Your task to perform on an android device: change the upload size in google photos Image 0: 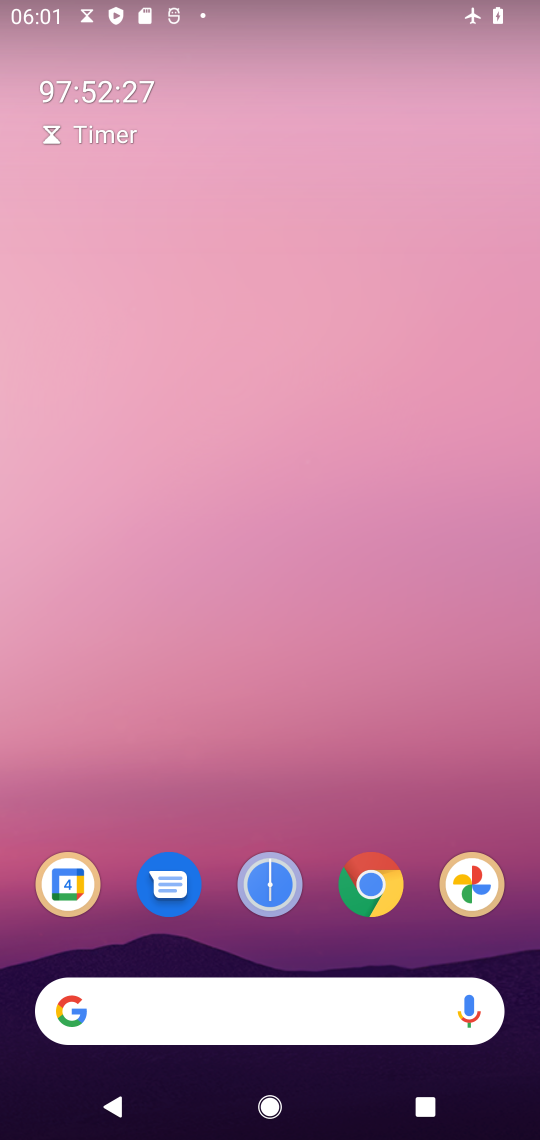
Step 0: drag from (265, 890) to (256, 430)
Your task to perform on an android device: change the upload size in google photos Image 1: 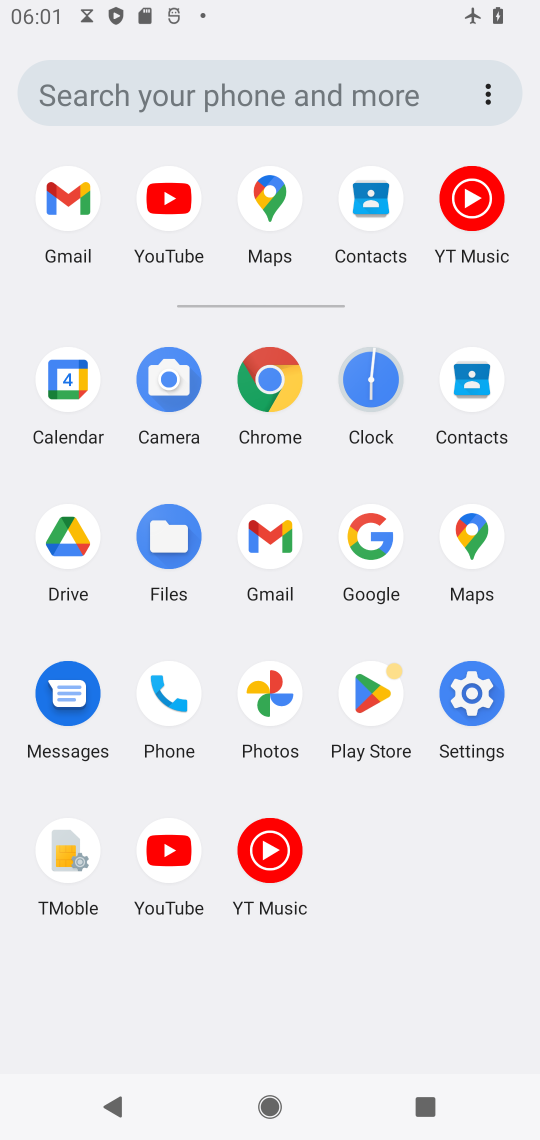
Step 1: click (271, 701)
Your task to perform on an android device: change the upload size in google photos Image 2: 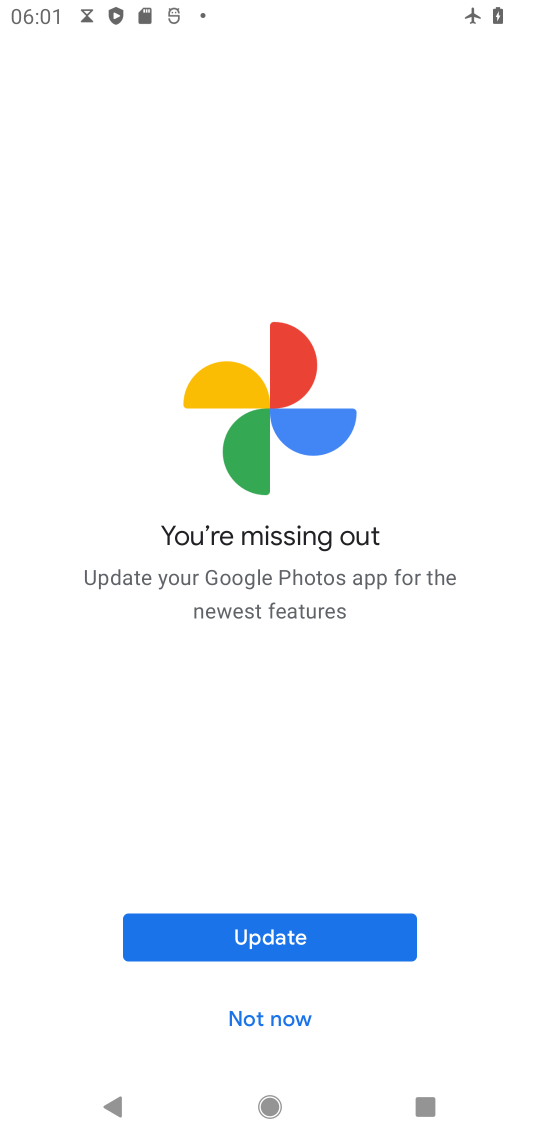
Step 2: click (283, 1031)
Your task to perform on an android device: change the upload size in google photos Image 3: 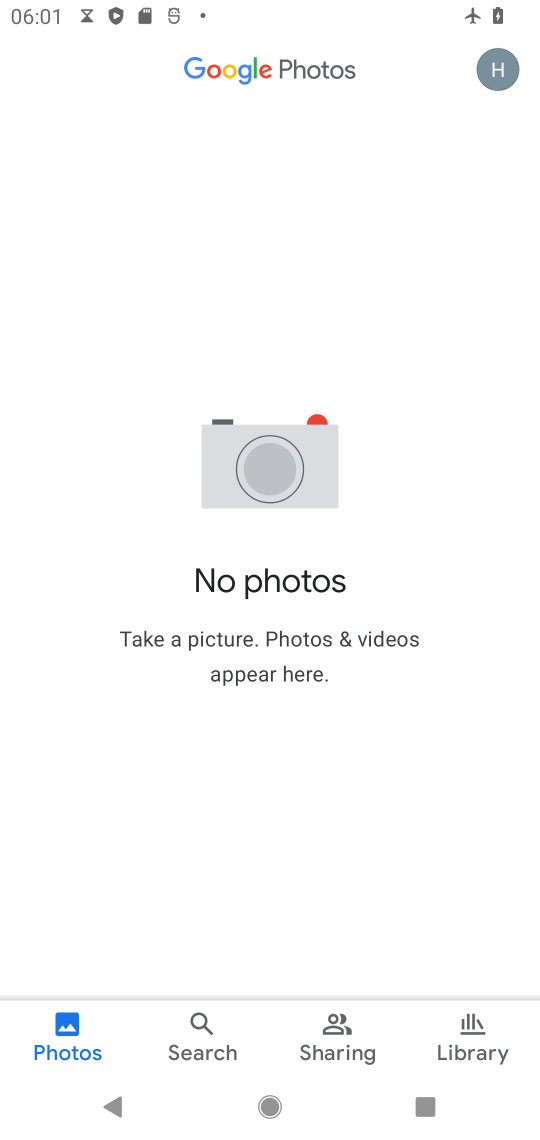
Step 3: click (505, 68)
Your task to perform on an android device: change the upload size in google photos Image 4: 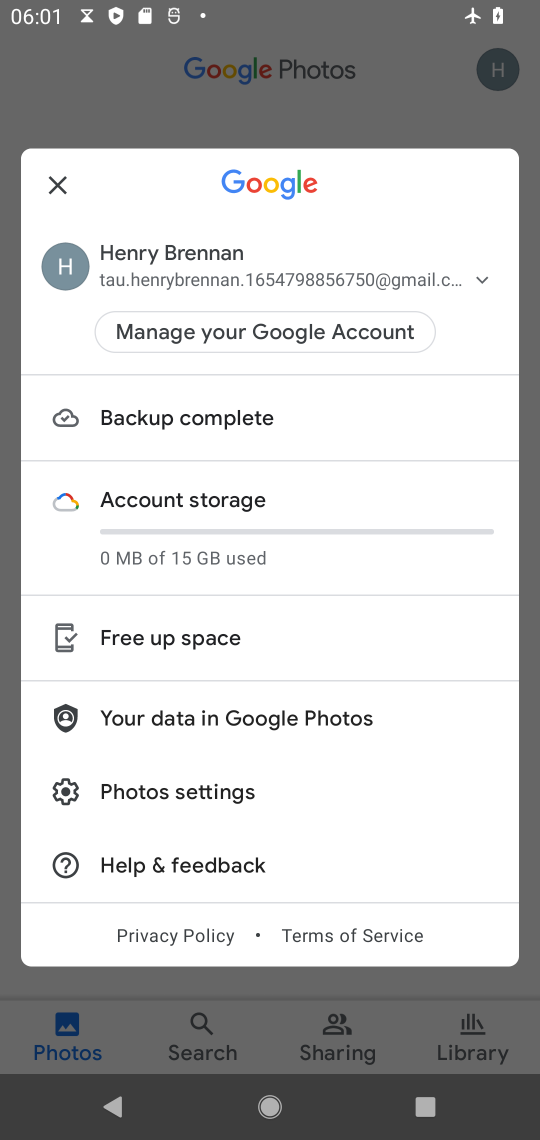
Step 4: click (194, 799)
Your task to perform on an android device: change the upload size in google photos Image 5: 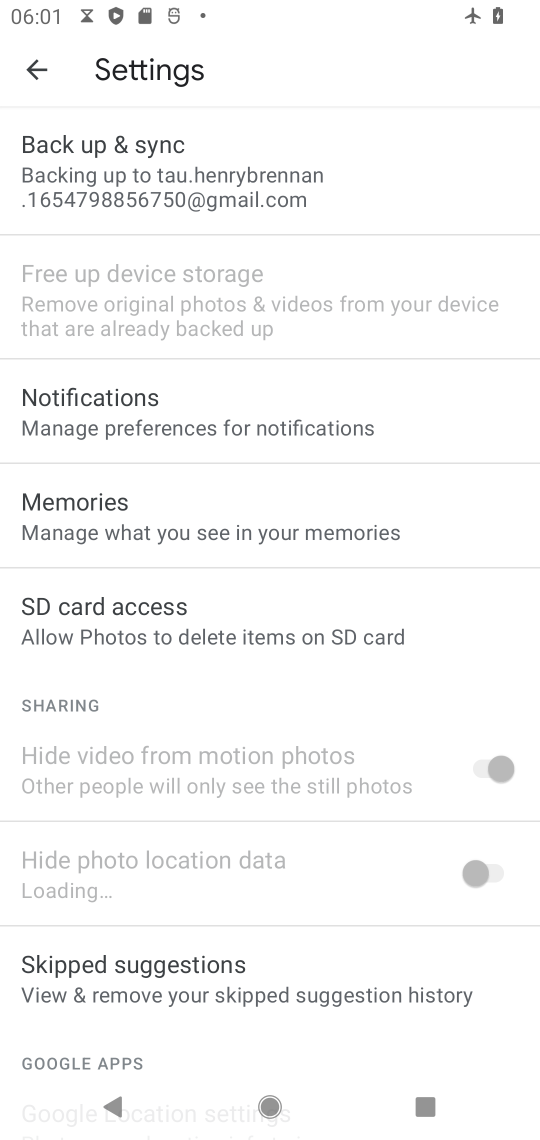
Step 5: click (190, 176)
Your task to perform on an android device: change the upload size in google photos Image 6: 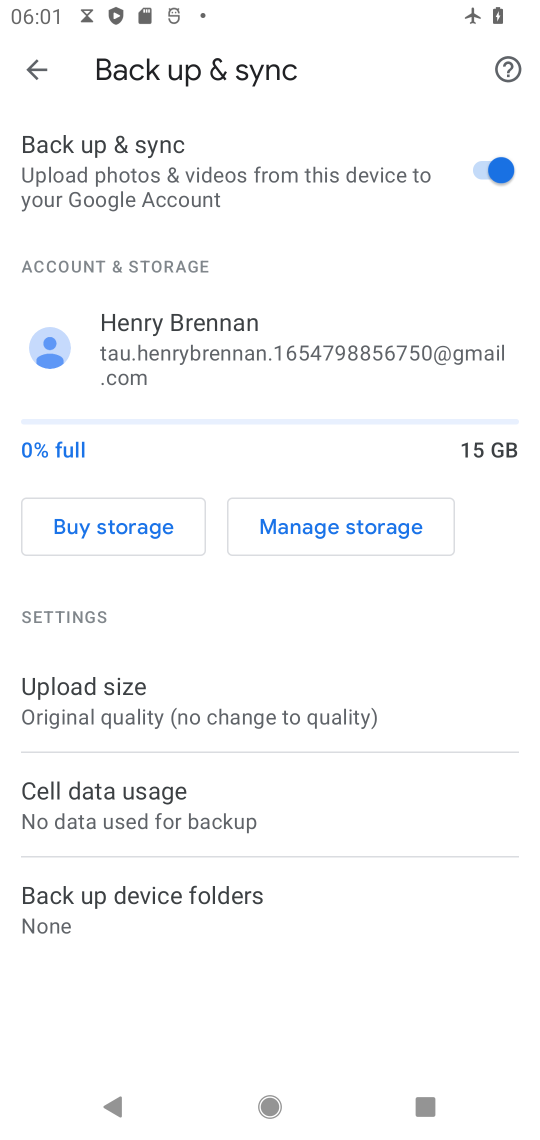
Step 6: click (126, 704)
Your task to perform on an android device: change the upload size in google photos Image 7: 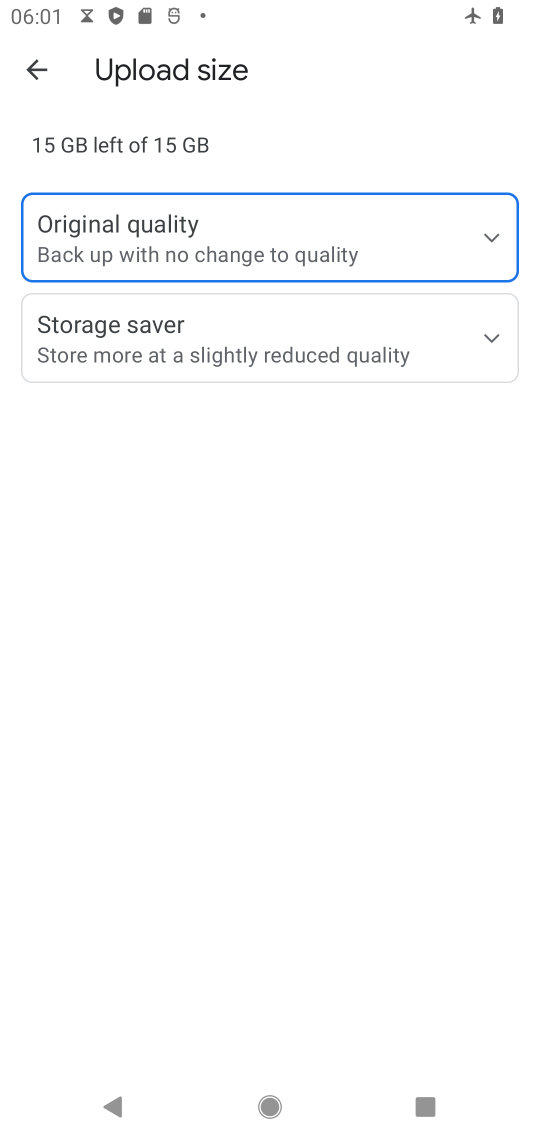
Step 7: click (120, 343)
Your task to perform on an android device: change the upload size in google photos Image 8: 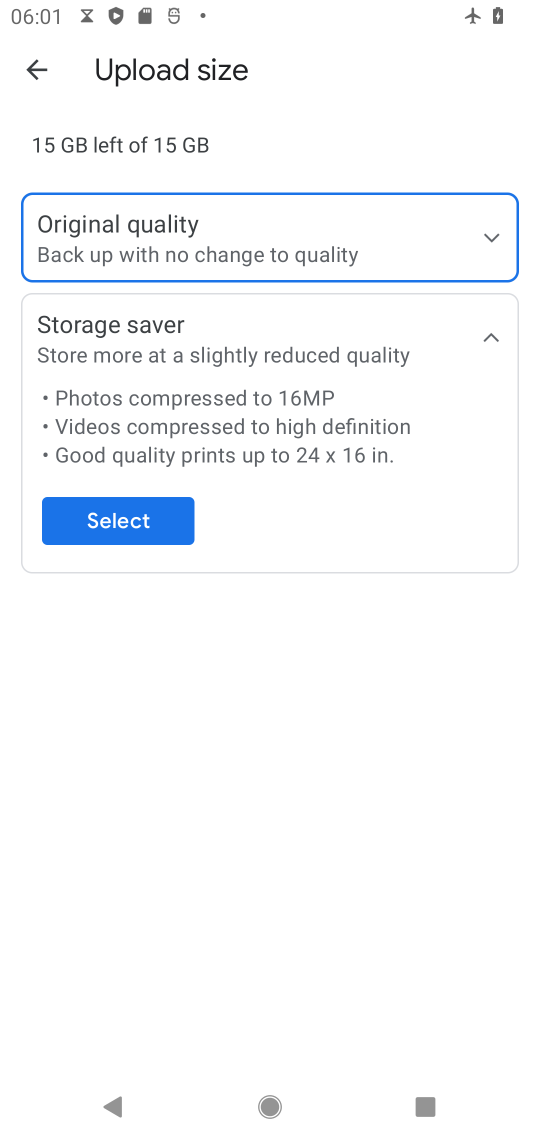
Step 8: click (166, 525)
Your task to perform on an android device: change the upload size in google photos Image 9: 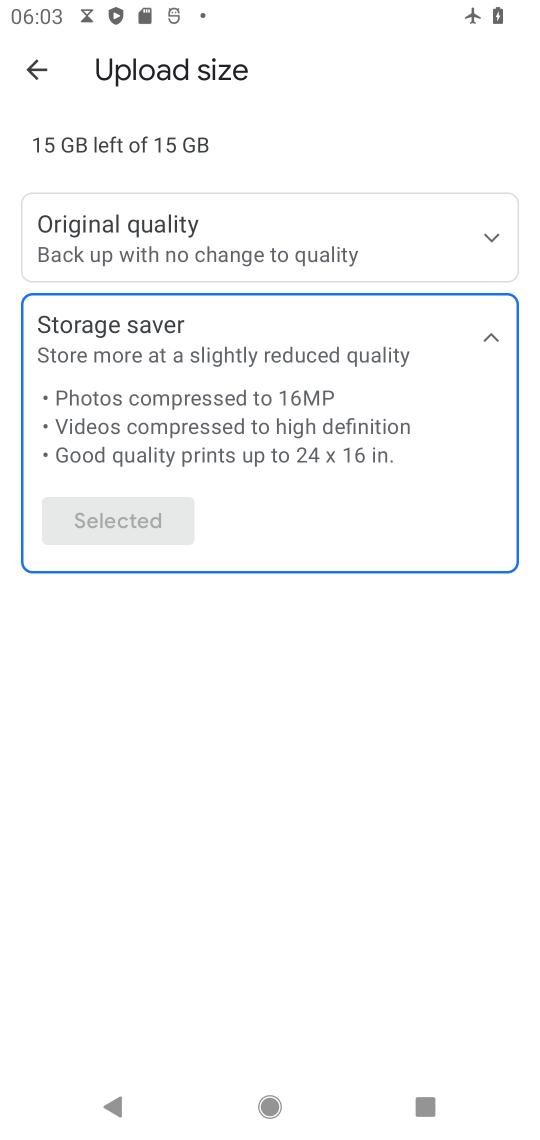
Step 9: task complete